Your task to perform on an android device: What is the speed of a jet? Image 0: 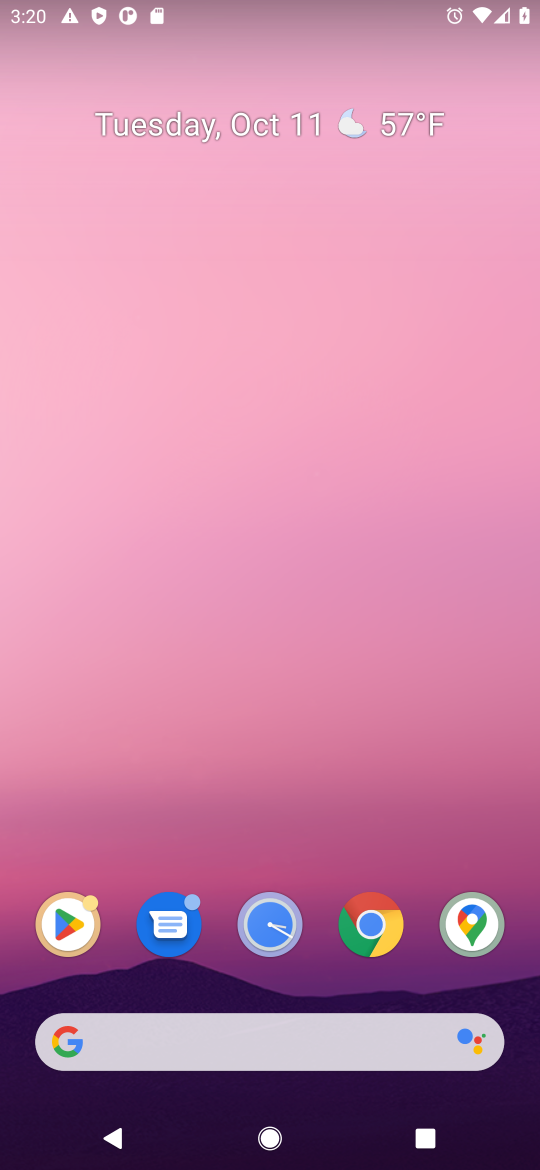
Step 0: drag from (372, 734) to (427, 211)
Your task to perform on an android device: What is the speed of a jet? Image 1: 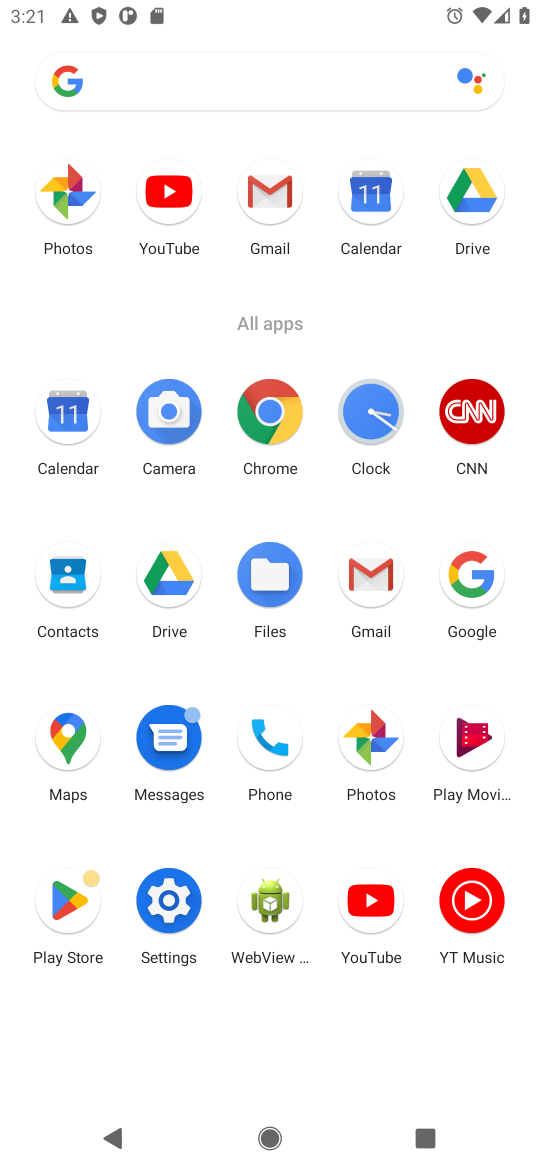
Step 1: click (255, 409)
Your task to perform on an android device: What is the speed of a jet? Image 2: 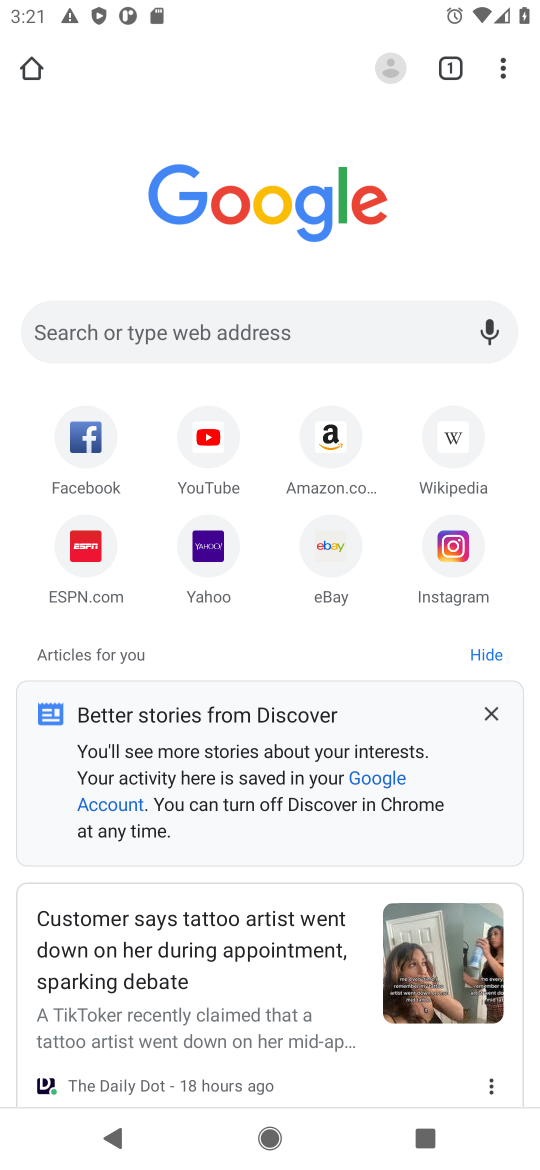
Step 2: click (288, 343)
Your task to perform on an android device: What is the speed of a jet? Image 3: 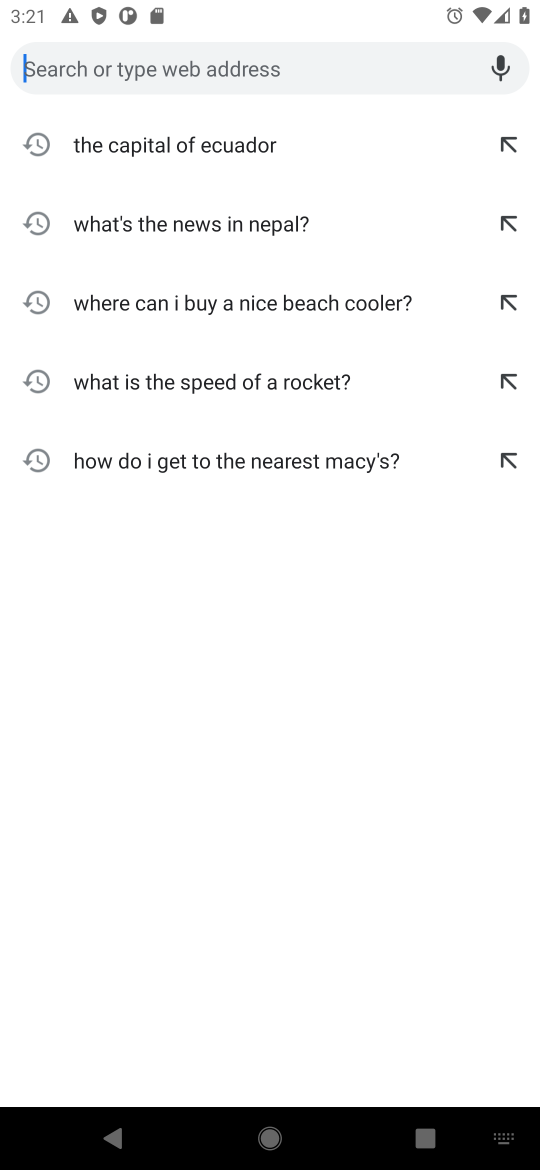
Step 3: type "What is the speed of a jet?"
Your task to perform on an android device: What is the speed of a jet? Image 4: 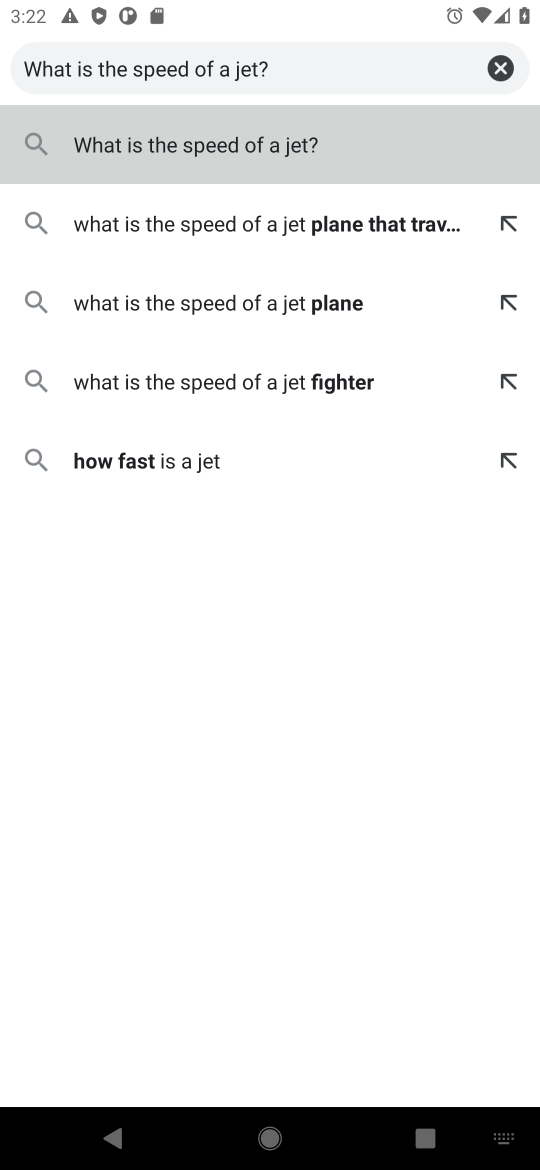
Step 4: type ""
Your task to perform on an android device: What is the speed of a jet? Image 5: 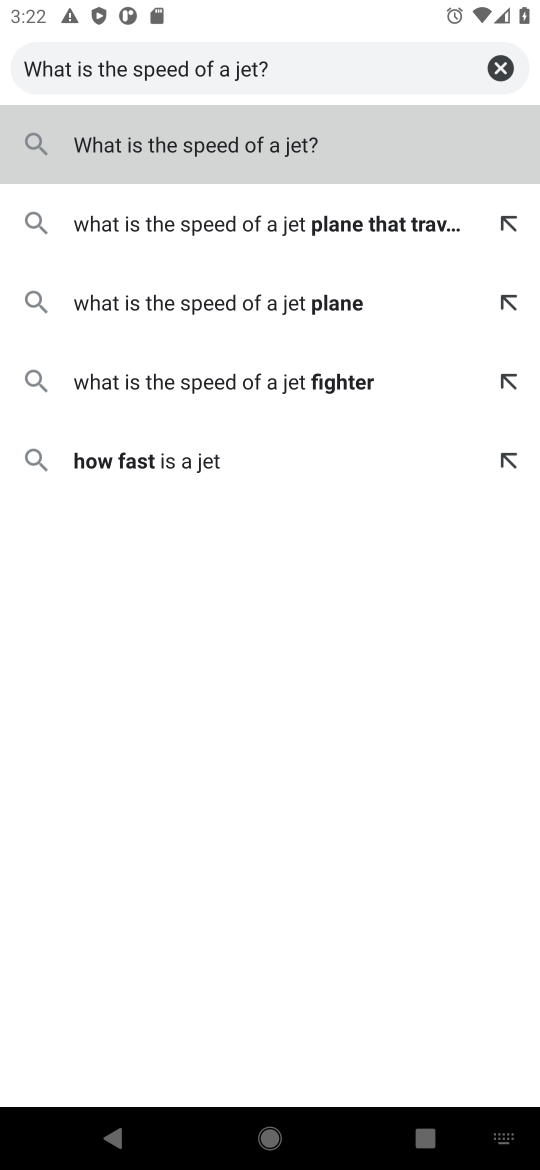
Step 5: click (244, 146)
Your task to perform on an android device: What is the speed of a jet? Image 6: 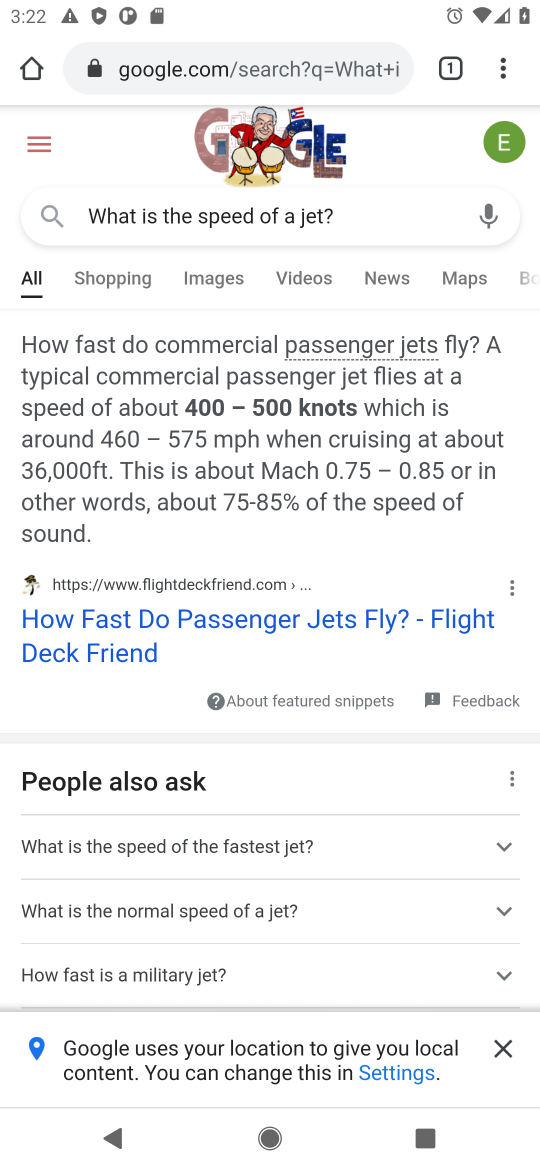
Step 6: task complete